Your task to perform on an android device: Open calendar and show me the third week of next month Image 0: 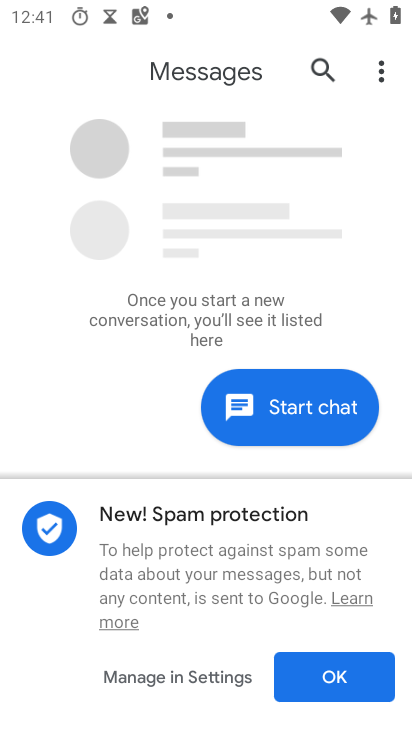
Step 0: press home button
Your task to perform on an android device: Open calendar and show me the third week of next month Image 1: 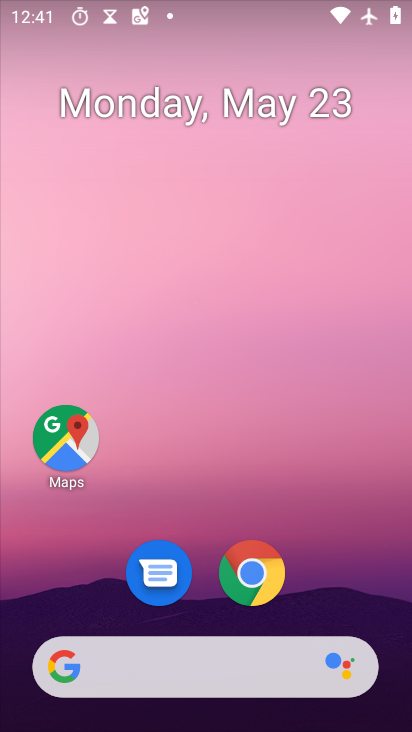
Step 1: drag from (186, 672) to (235, 254)
Your task to perform on an android device: Open calendar and show me the third week of next month Image 2: 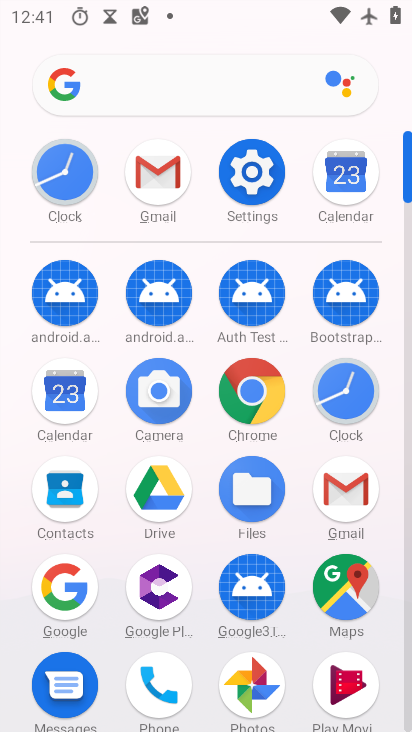
Step 2: click (74, 408)
Your task to perform on an android device: Open calendar and show me the third week of next month Image 3: 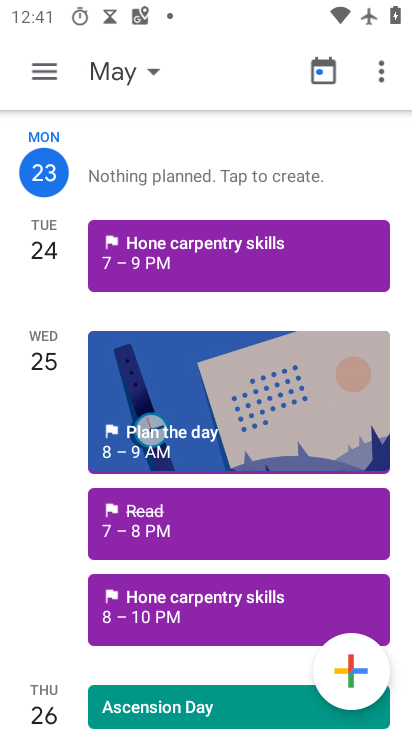
Step 3: click (120, 74)
Your task to perform on an android device: Open calendar and show me the third week of next month Image 4: 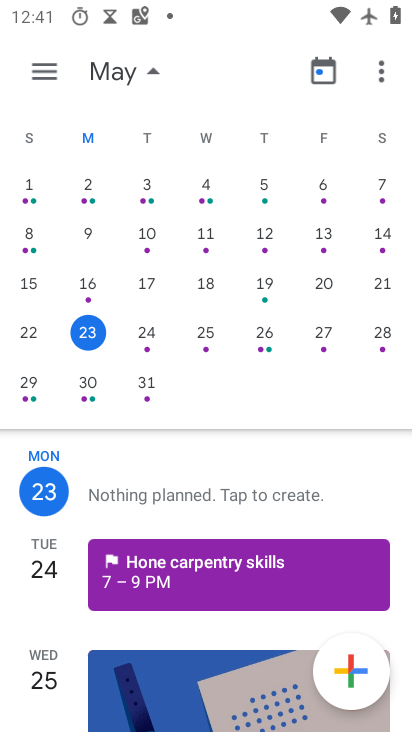
Step 4: drag from (347, 298) to (23, 254)
Your task to perform on an android device: Open calendar and show me the third week of next month Image 5: 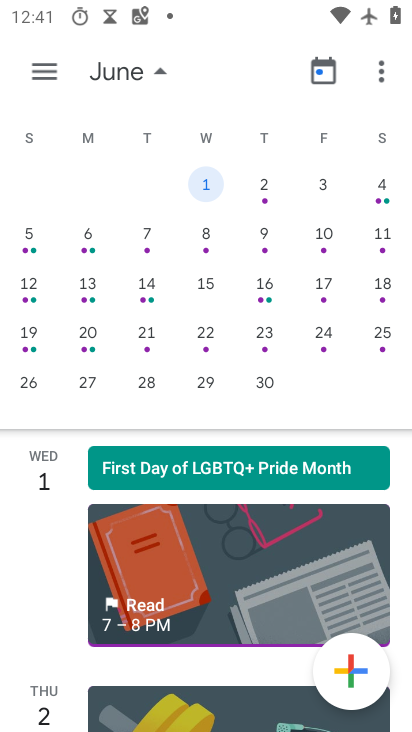
Step 5: click (32, 288)
Your task to perform on an android device: Open calendar and show me the third week of next month Image 6: 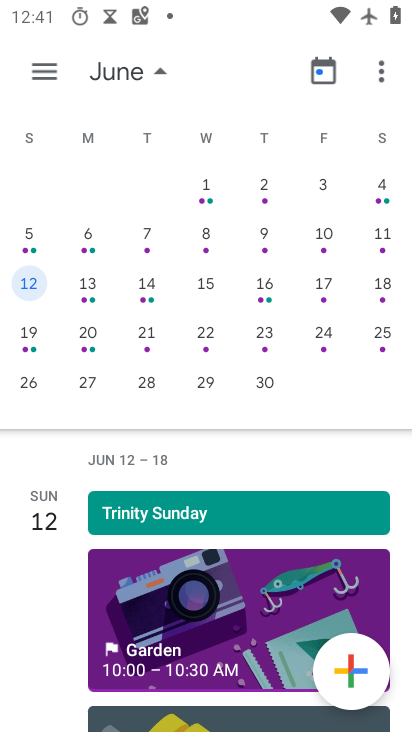
Step 6: click (47, 66)
Your task to perform on an android device: Open calendar and show me the third week of next month Image 7: 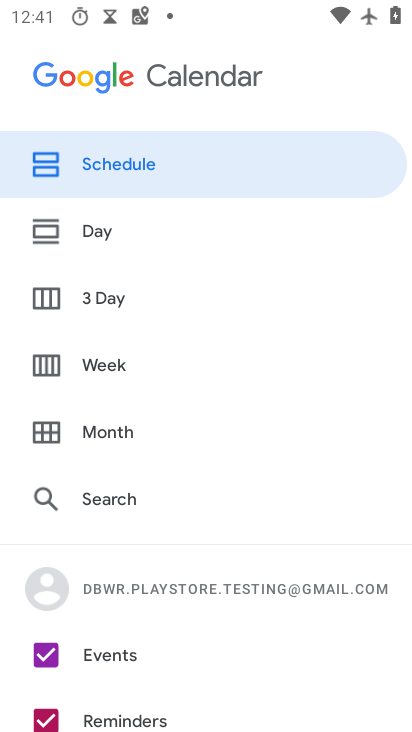
Step 7: click (93, 365)
Your task to perform on an android device: Open calendar and show me the third week of next month Image 8: 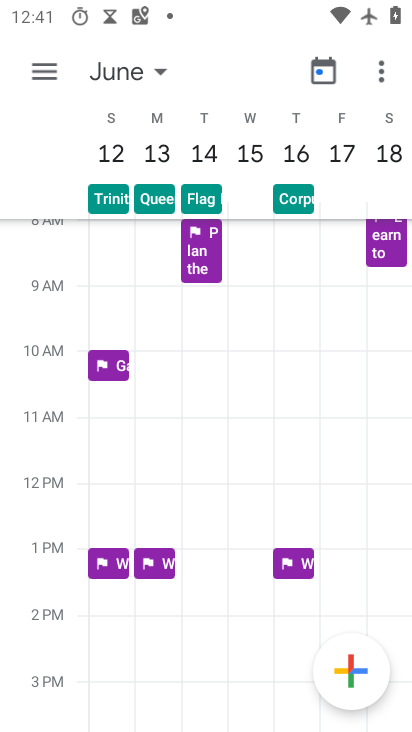
Step 8: task complete